Your task to perform on an android device: turn off improve location accuracy Image 0: 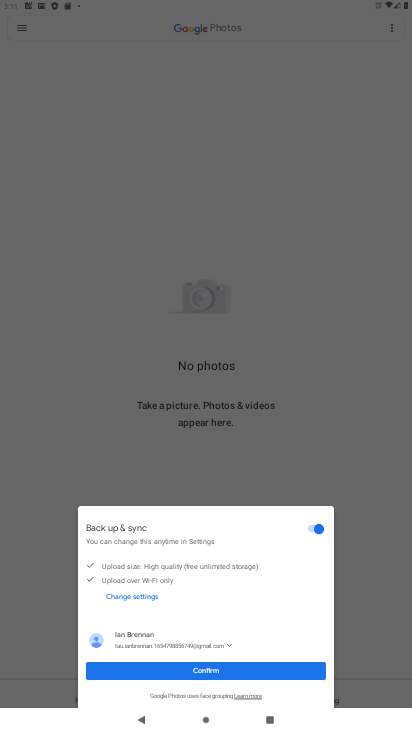
Step 0: press home button
Your task to perform on an android device: turn off improve location accuracy Image 1: 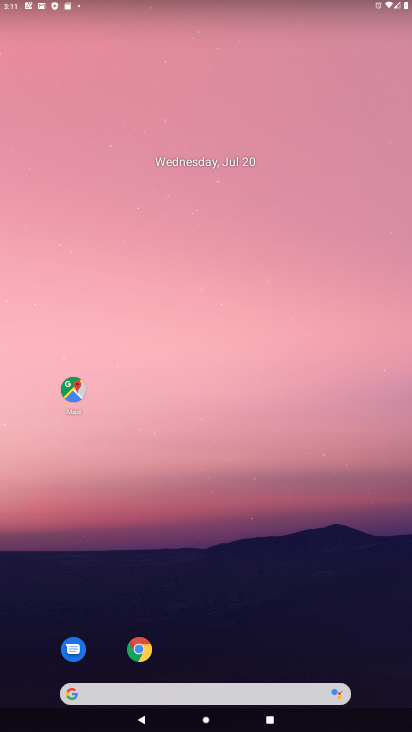
Step 1: drag from (193, 698) to (256, 238)
Your task to perform on an android device: turn off improve location accuracy Image 2: 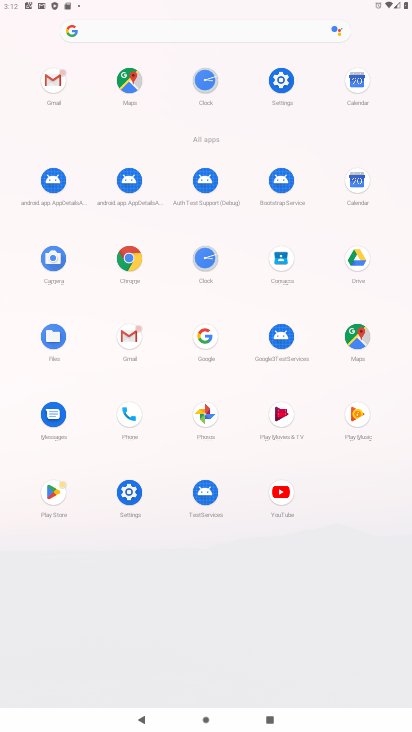
Step 2: click (130, 493)
Your task to perform on an android device: turn off improve location accuracy Image 3: 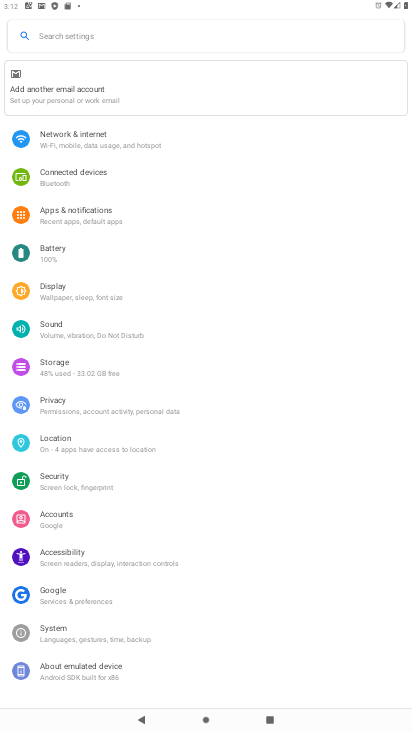
Step 3: click (40, 440)
Your task to perform on an android device: turn off improve location accuracy Image 4: 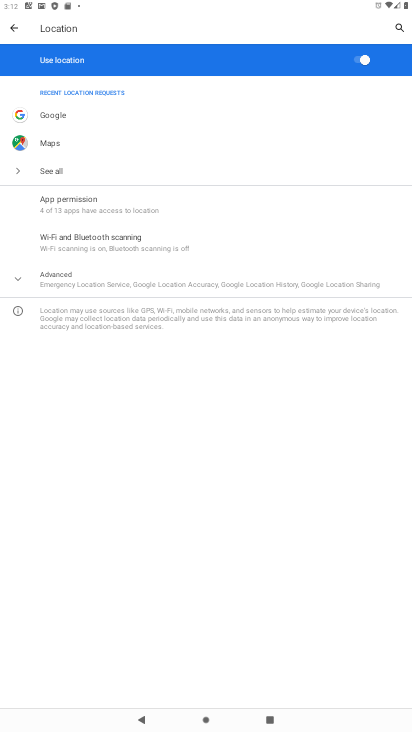
Step 4: click (88, 284)
Your task to perform on an android device: turn off improve location accuracy Image 5: 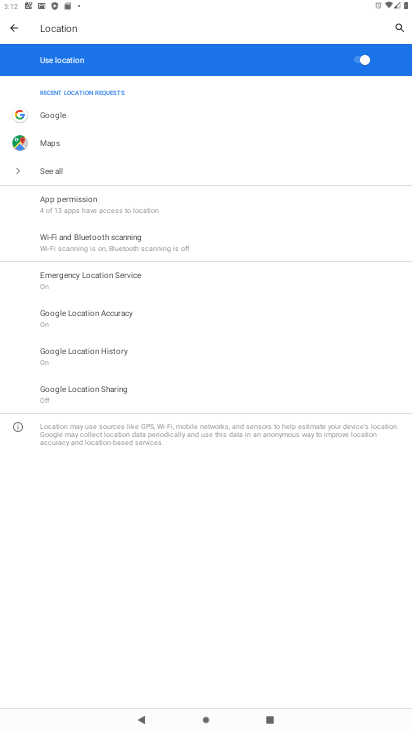
Step 5: click (107, 313)
Your task to perform on an android device: turn off improve location accuracy Image 6: 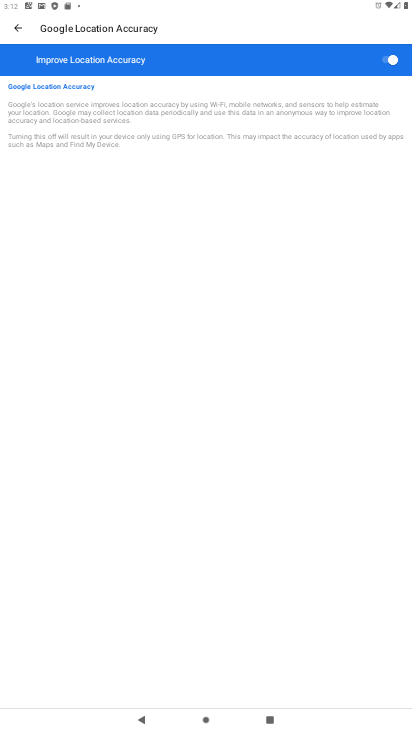
Step 6: click (392, 60)
Your task to perform on an android device: turn off improve location accuracy Image 7: 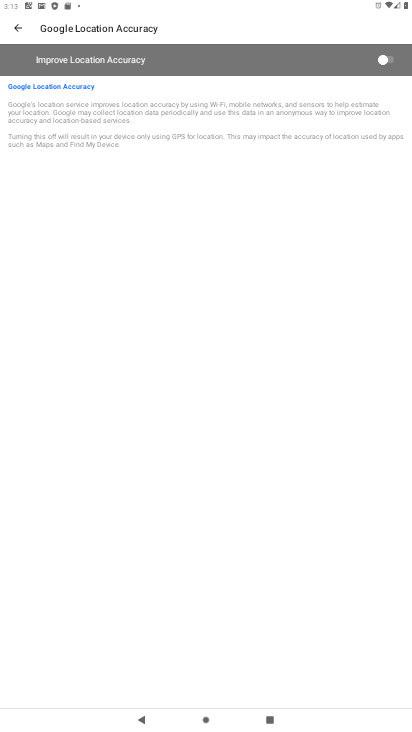
Step 7: task complete